Your task to perform on an android device: Open Google Maps and go to "Timeline" Image 0: 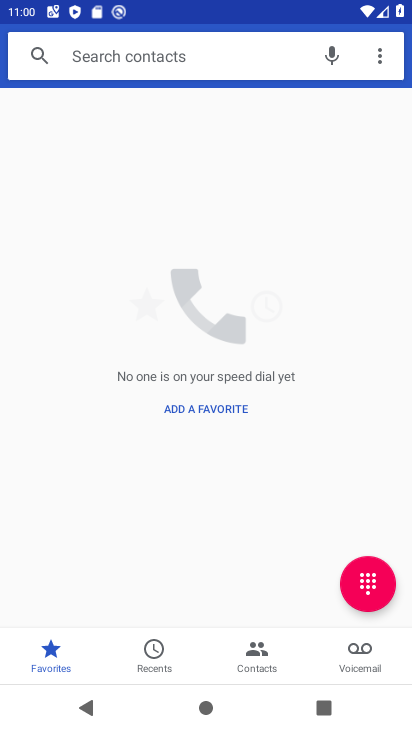
Step 0: press home button
Your task to perform on an android device: Open Google Maps and go to "Timeline" Image 1: 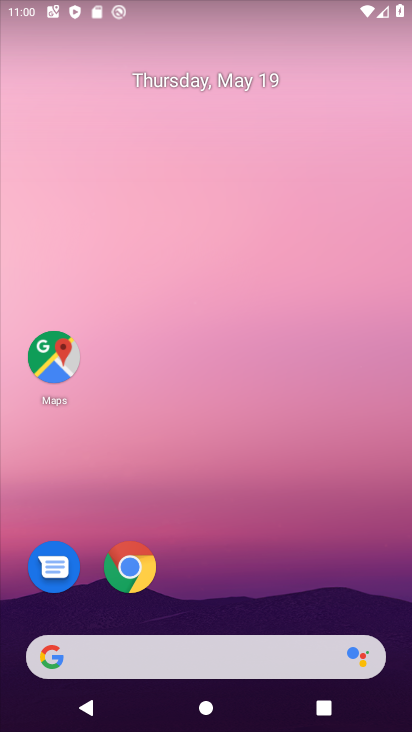
Step 1: click (56, 358)
Your task to perform on an android device: Open Google Maps and go to "Timeline" Image 2: 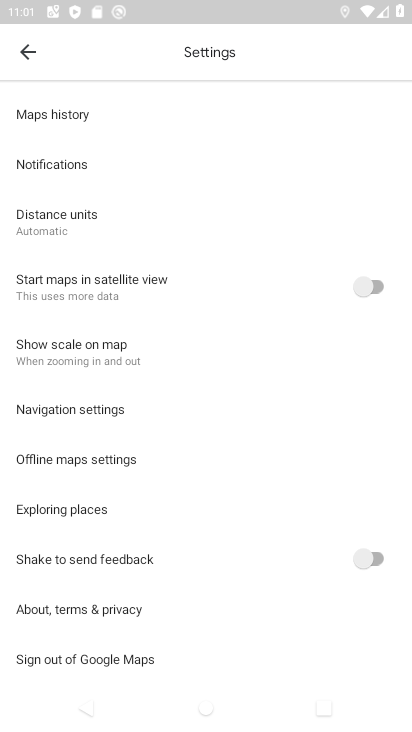
Step 2: drag from (210, 187) to (193, 461)
Your task to perform on an android device: Open Google Maps and go to "Timeline" Image 3: 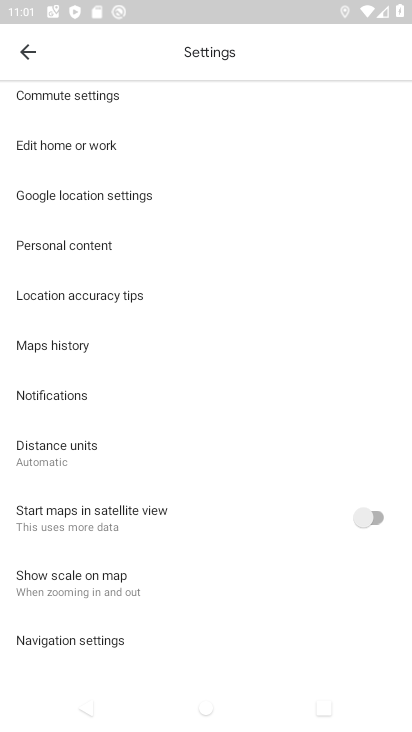
Step 3: press back button
Your task to perform on an android device: Open Google Maps and go to "Timeline" Image 4: 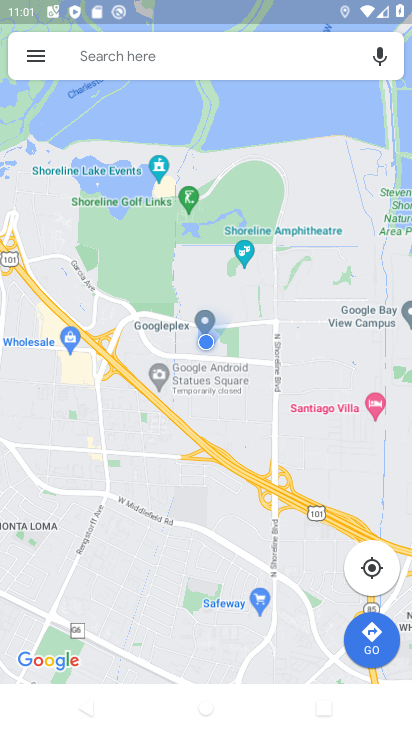
Step 4: click (30, 54)
Your task to perform on an android device: Open Google Maps and go to "Timeline" Image 5: 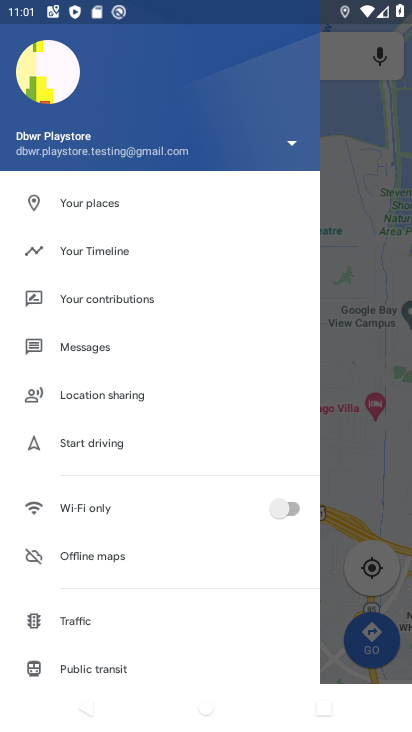
Step 5: click (79, 245)
Your task to perform on an android device: Open Google Maps and go to "Timeline" Image 6: 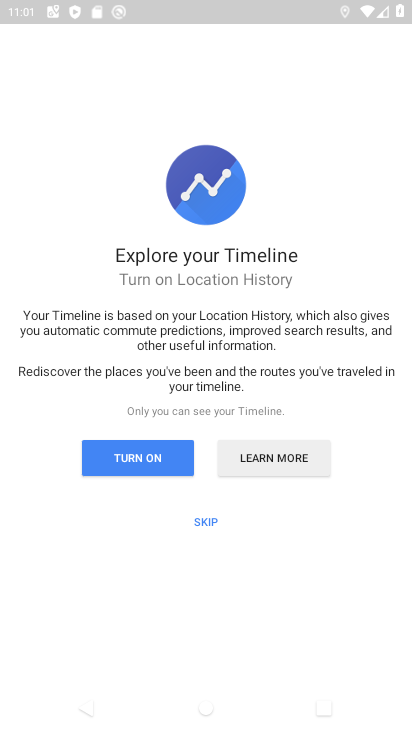
Step 6: click (206, 519)
Your task to perform on an android device: Open Google Maps and go to "Timeline" Image 7: 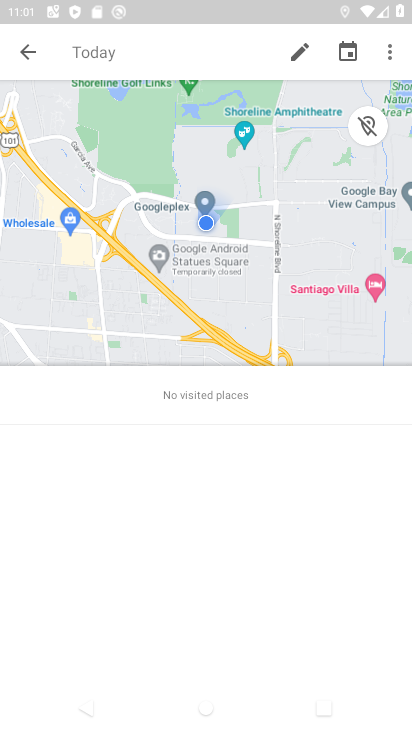
Step 7: task complete